Your task to perform on an android device: What's on my calendar today? Image 0: 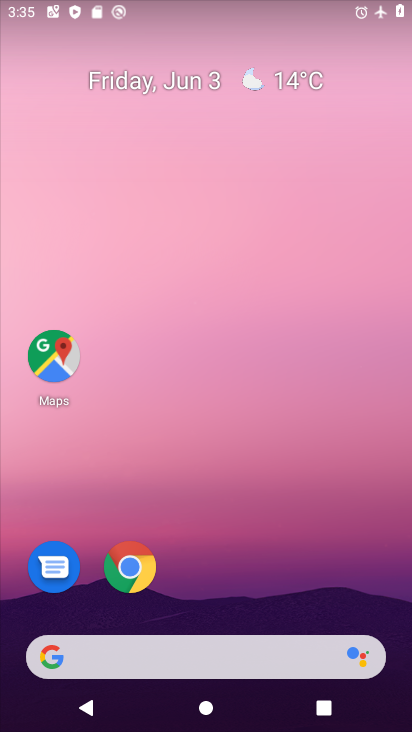
Step 0: click (248, 204)
Your task to perform on an android device: What's on my calendar today? Image 1: 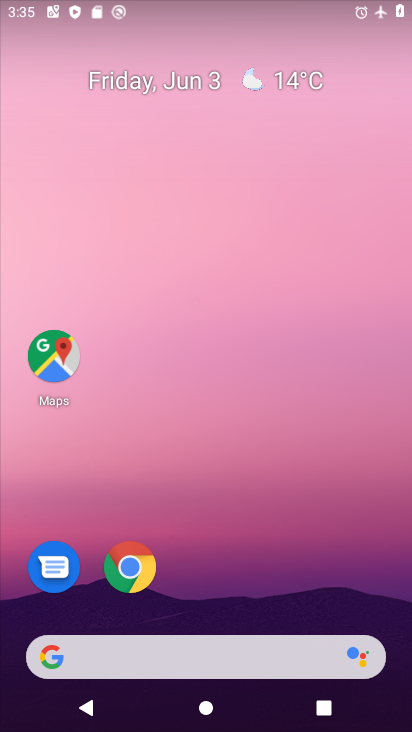
Step 1: drag from (272, 689) to (289, 73)
Your task to perform on an android device: What's on my calendar today? Image 2: 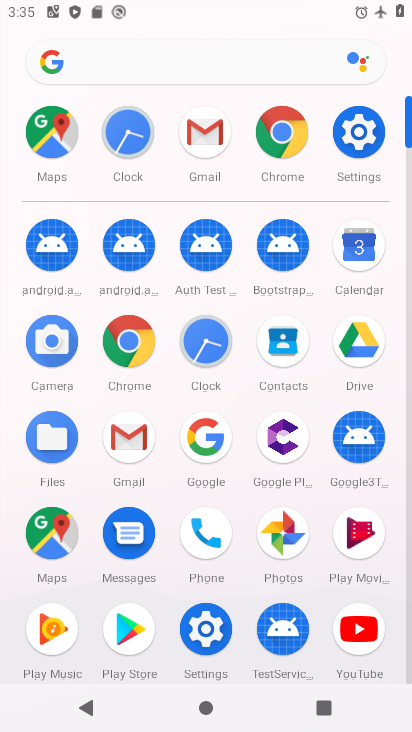
Step 2: click (375, 226)
Your task to perform on an android device: What's on my calendar today? Image 3: 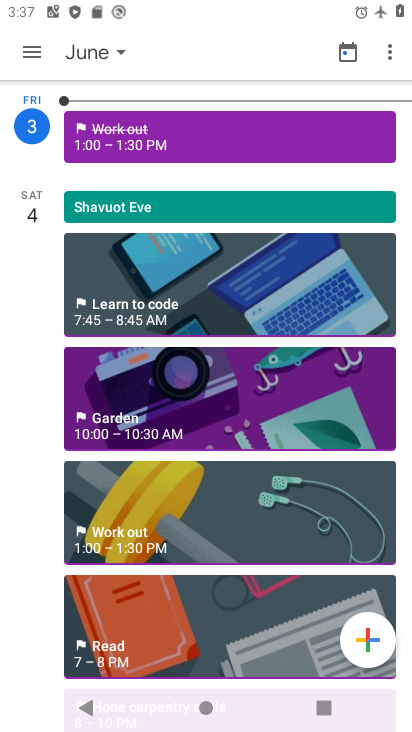
Step 3: task complete